Your task to perform on an android device: turn on the 24-hour format for clock Image 0: 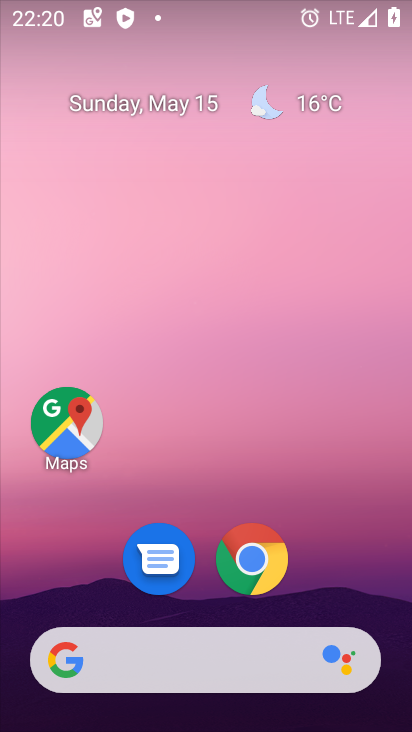
Step 0: drag from (298, 444) to (172, 55)
Your task to perform on an android device: turn on the 24-hour format for clock Image 1: 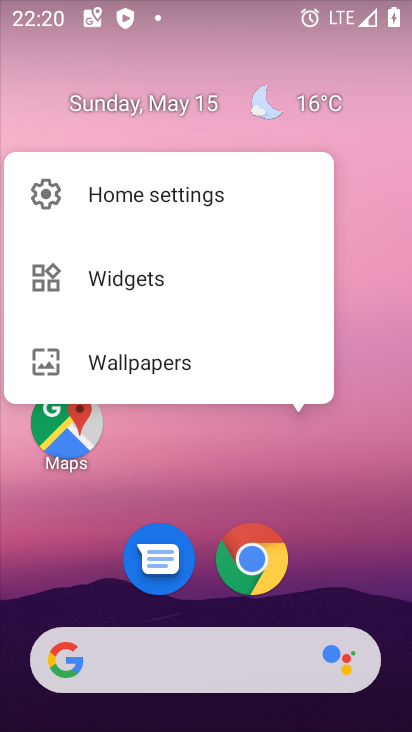
Step 1: click (192, 505)
Your task to perform on an android device: turn on the 24-hour format for clock Image 2: 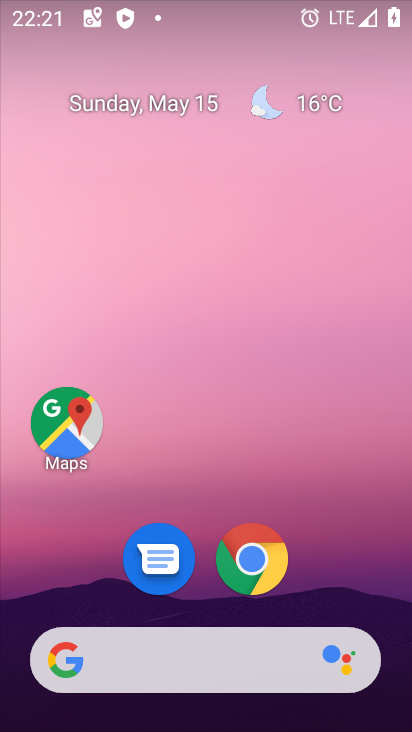
Step 2: drag from (331, 513) to (216, 72)
Your task to perform on an android device: turn on the 24-hour format for clock Image 3: 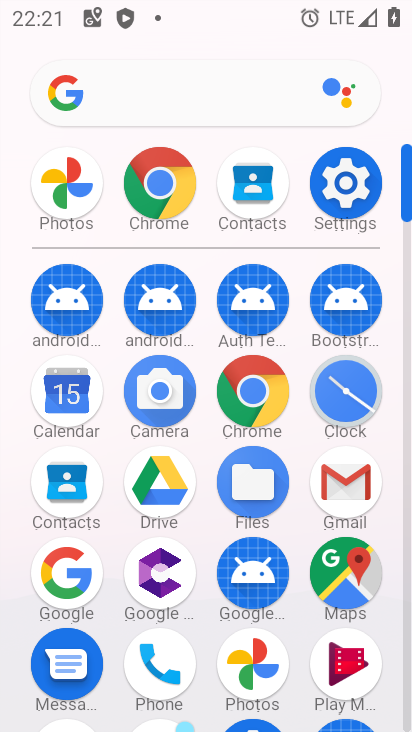
Step 3: click (343, 398)
Your task to perform on an android device: turn on the 24-hour format for clock Image 4: 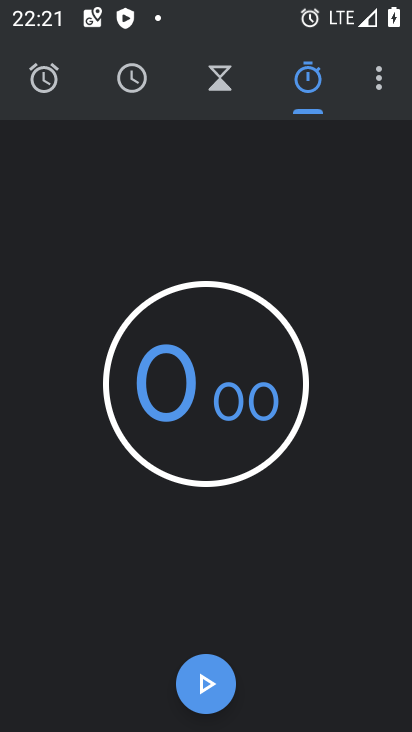
Step 4: click (381, 85)
Your task to perform on an android device: turn on the 24-hour format for clock Image 5: 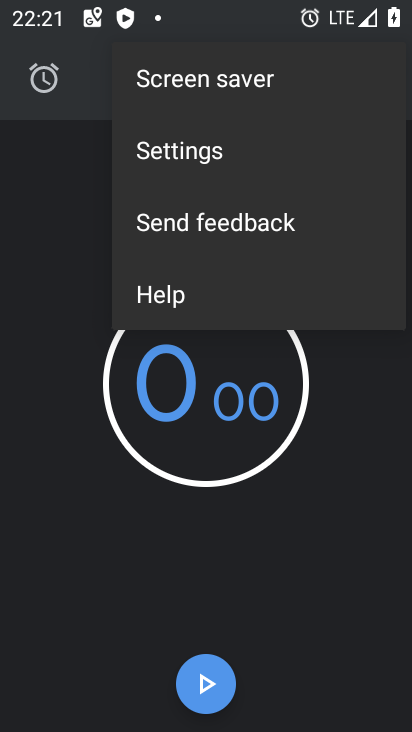
Step 5: click (201, 151)
Your task to perform on an android device: turn on the 24-hour format for clock Image 6: 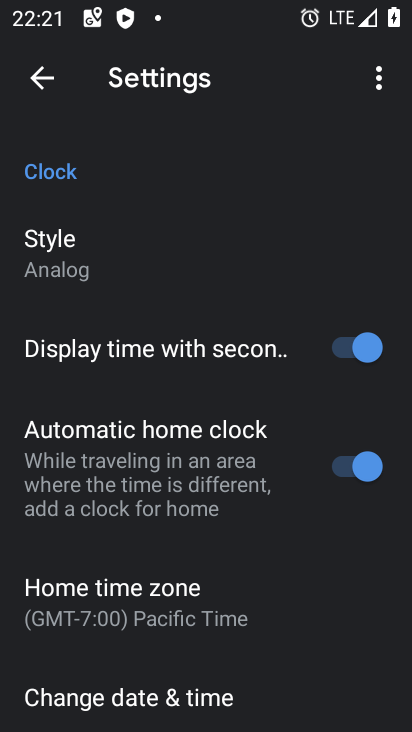
Step 6: drag from (284, 573) to (243, 83)
Your task to perform on an android device: turn on the 24-hour format for clock Image 7: 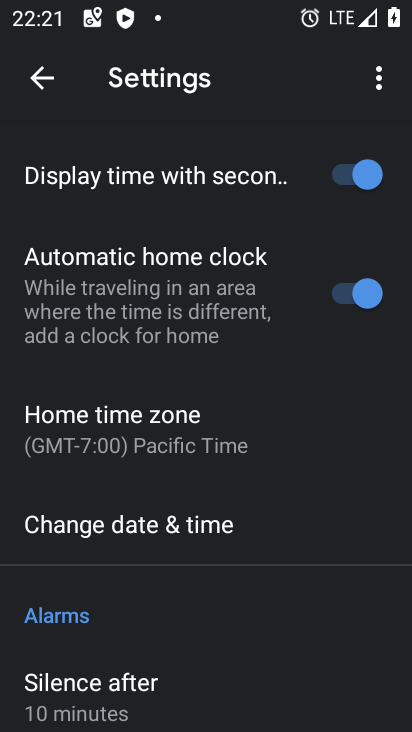
Step 7: click (120, 528)
Your task to perform on an android device: turn on the 24-hour format for clock Image 8: 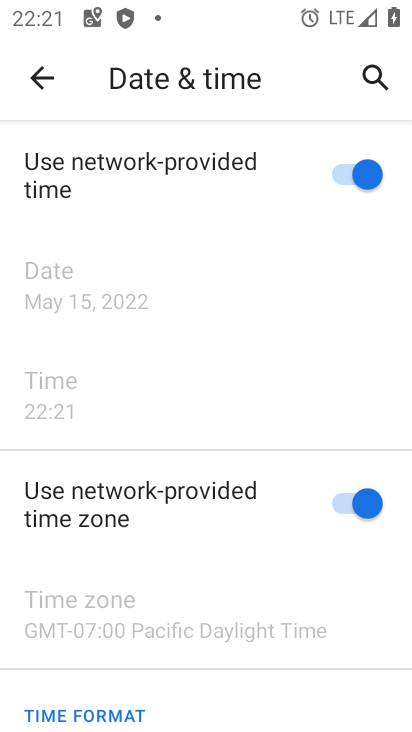
Step 8: task complete